Your task to perform on an android device: open a bookmark in the chrome app Image 0: 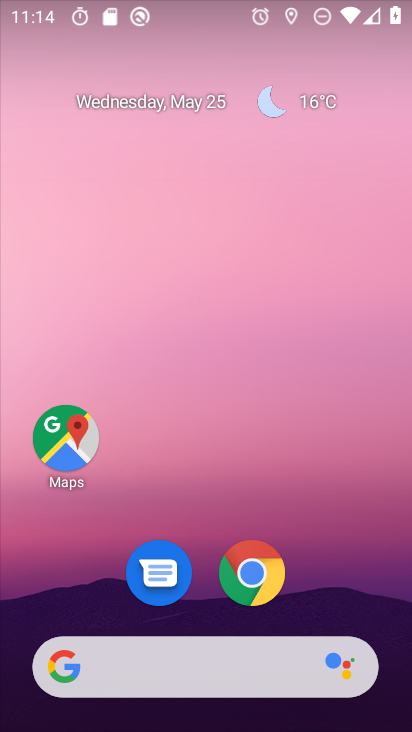
Step 0: click (248, 564)
Your task to perform on an android device: open a bookmark in the chrome app Image 1: 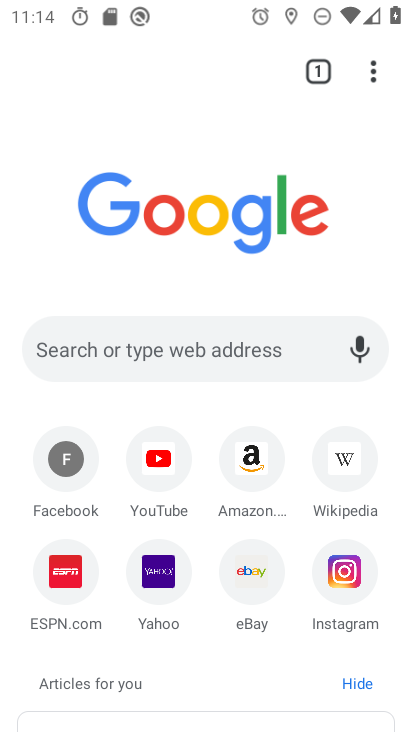
Step 1: click (372, 73)
Your task to perform on an android device: open a bookmark in the chrome app Image 2: 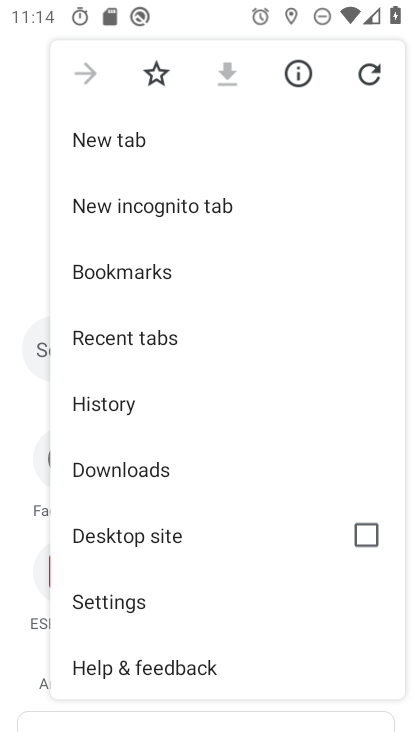
Step 2: click (129, 273)
Your task to perform on an android device: open a bookmark in the chrome app Image 3: 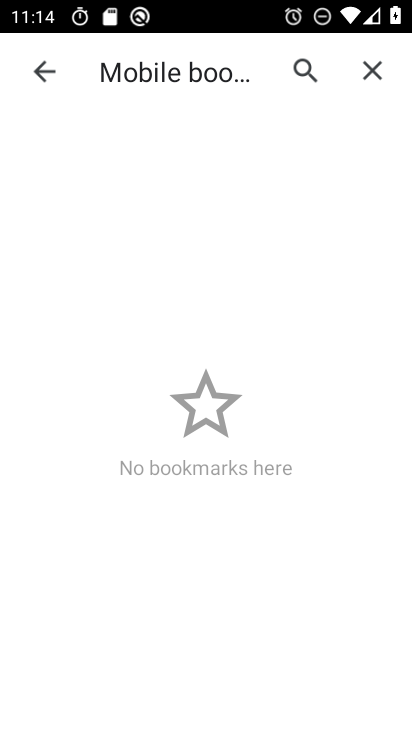
Step 3: task complete